Your task to perform on an android device: turn on bluetooth scan Image 0: 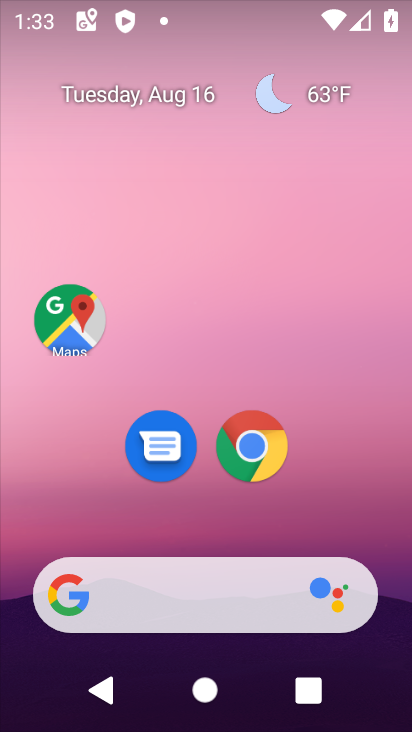
Step 0: press home button
Your task to perform on an android device: turn on bluetooth scan Image 1: 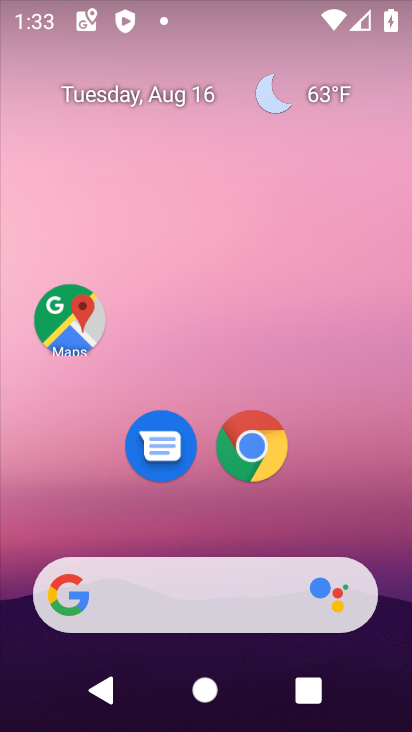
Step 1: drag from (200, 537) to (201, 22)
Your task to perform on an android device: turn on bluetooth scan Image 2: 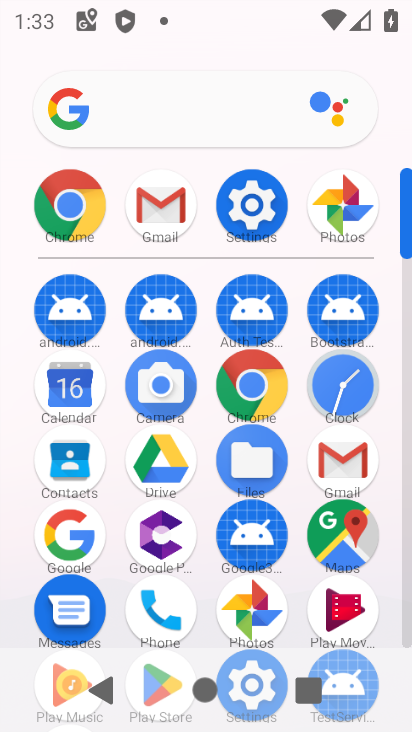
Step 2: click (249, 196)
Your task to perform on an android device: turn on bluetooth scan Image 3: 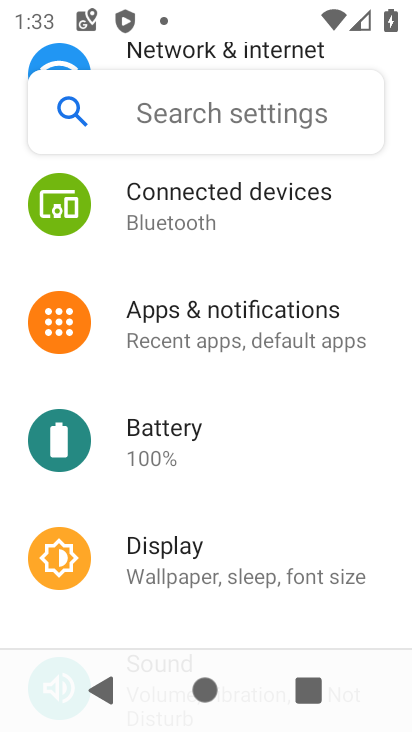
Step 3: drag from (218, 546) to (227, 120)
Your task to perform on an android device: turn on bluetooth scan Image 4: 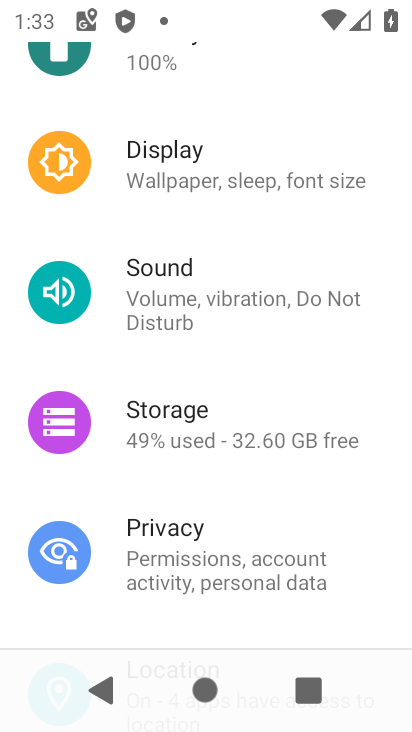
Step 4: drag from (210, 604) to (236, 131)
Your task to perform on an android device: turn on bluetooth scan Image 5: 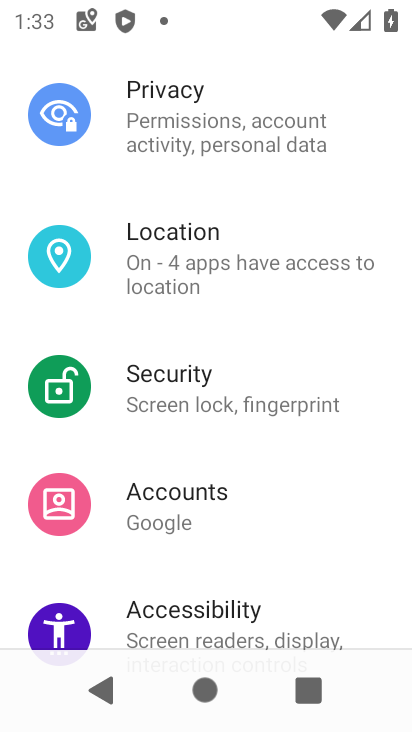
Step 5: click (235, 245)
Your task to perform on an android device: turn on bluetooth scan Image 6: 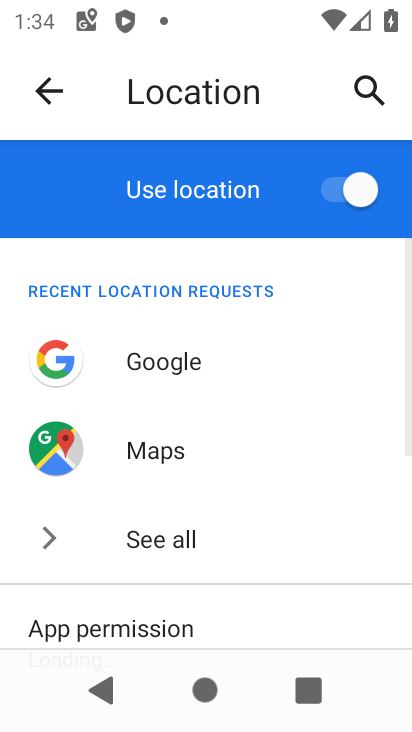
Step 6: drag from (216, 589) to (233, 2)
Your task to perform on an android device: turn on bluetooth scan Image 7: 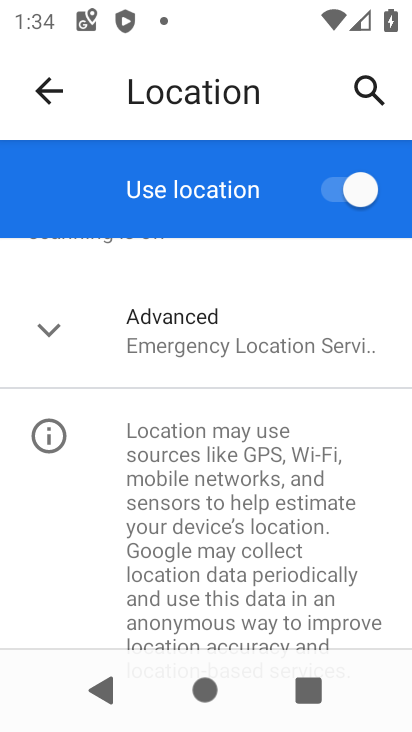
Step 7: click (156, 349)
Your task to perform on an android device: turn on bluetooth scan Image 8: 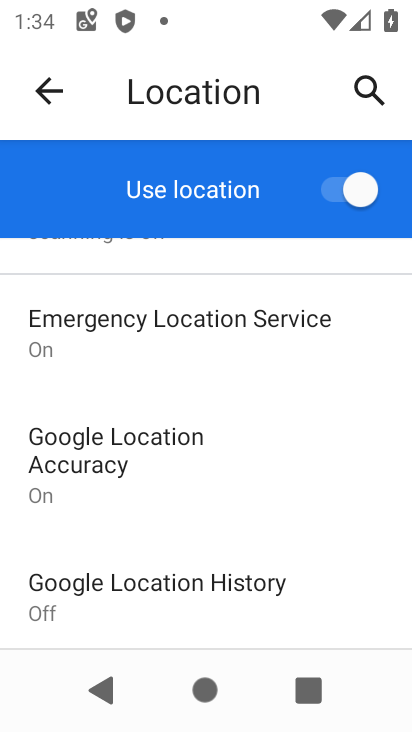
Step 8: drag from (133, 273) to (170, 531)
Your task to perform on an android device: turn on bluetooth scan Image 9: 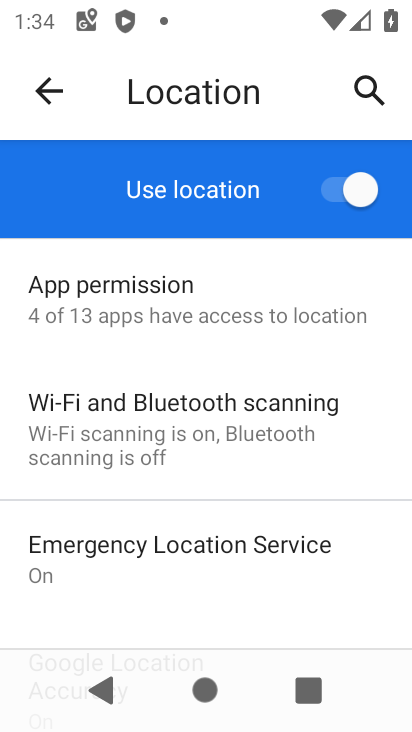
Step 9: click (189, 427)
Your task to perform on an android device: turn on bluetooth scan Image 10: 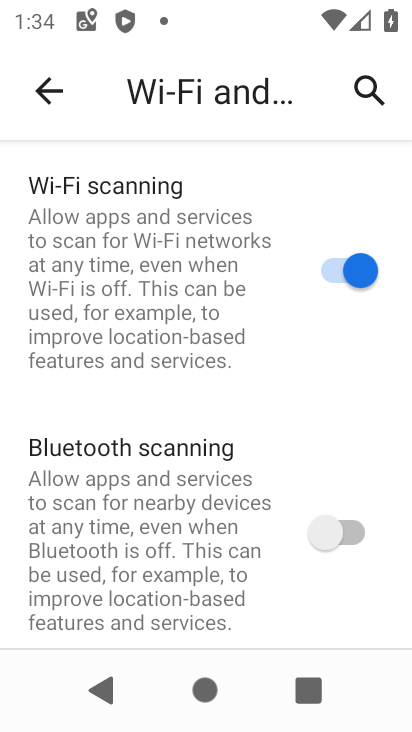
Step 10: click (355, 527)
Your task to perform on an android device: turn on bluetooth scan Image 11: 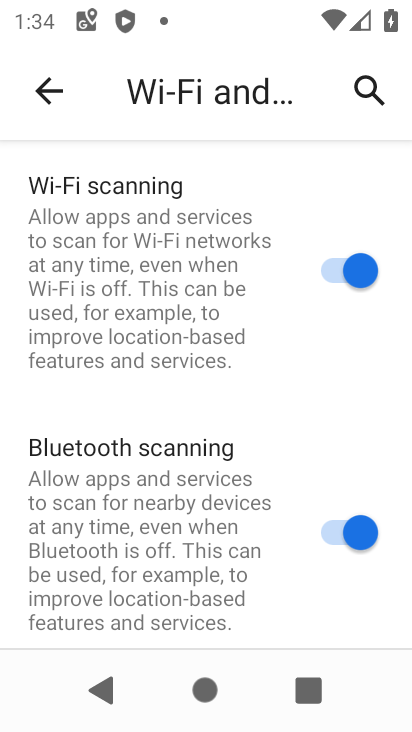
Step 11: task complete